Your task to perform on an android device: check android version Image 0: 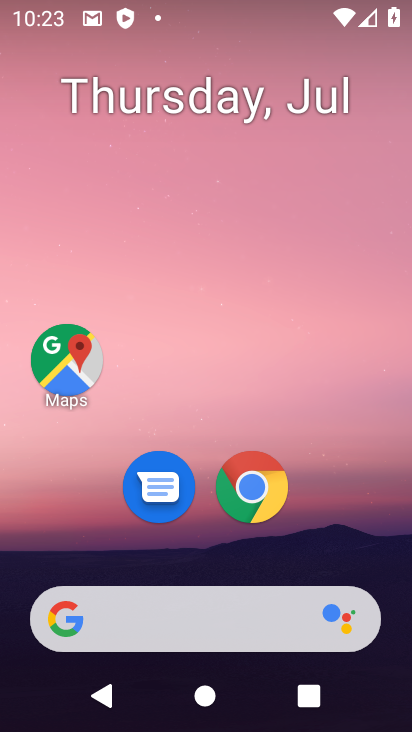
Step 0: drag from (216, 515) to (207, 25)
Your task to perform on an android device: check android version Image 1: 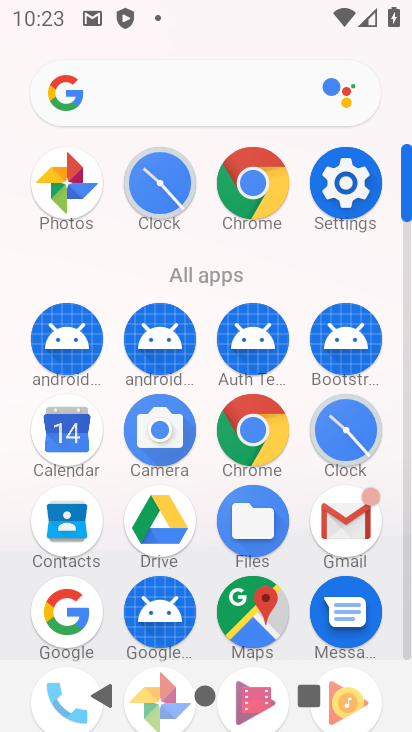
Step 1: click (345, 171)
Your task to perform on an android device: check android version Image 2: 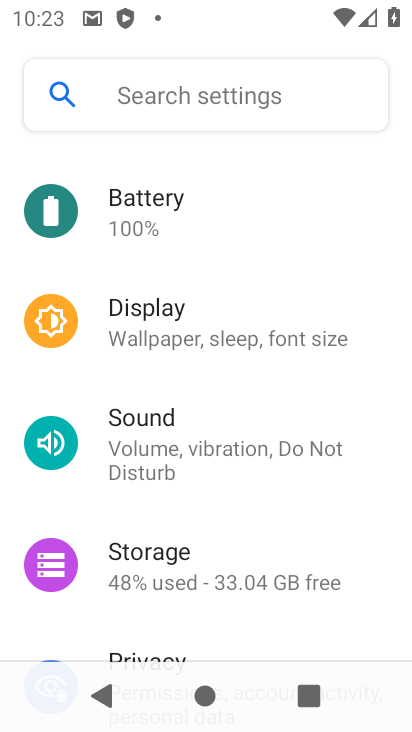
Step 2: drag from (139, 583) to (280, 34)
Your task to perform on an android device: check android version Image 3: 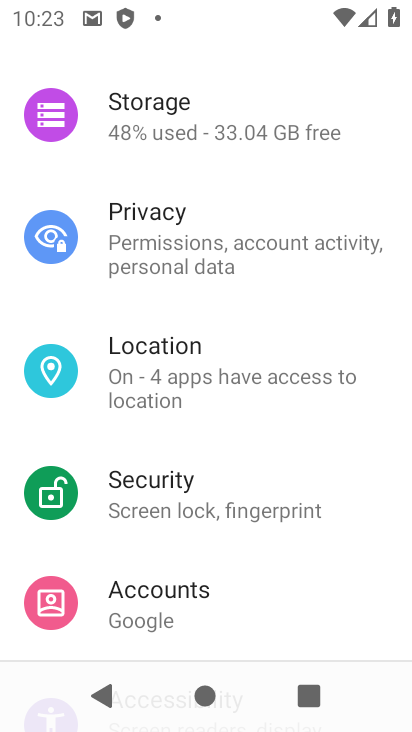
Step 3: drag from (157, 592) to (283, 13)
Your task to perform on an android device: check android version Image 4: 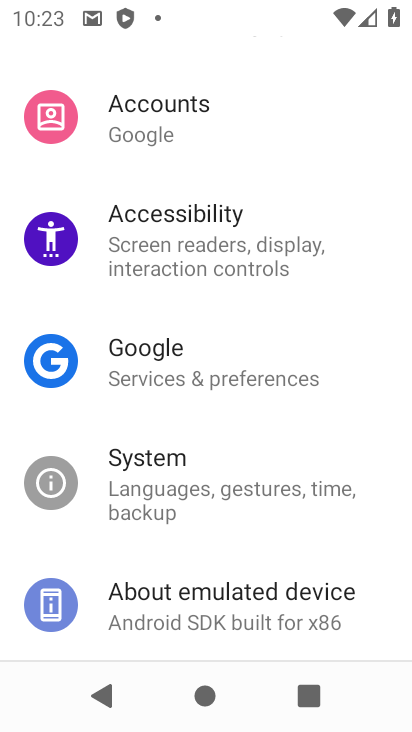
Step 4: click (175, 613)
Your task to perform on an android device: check android version Image 5: 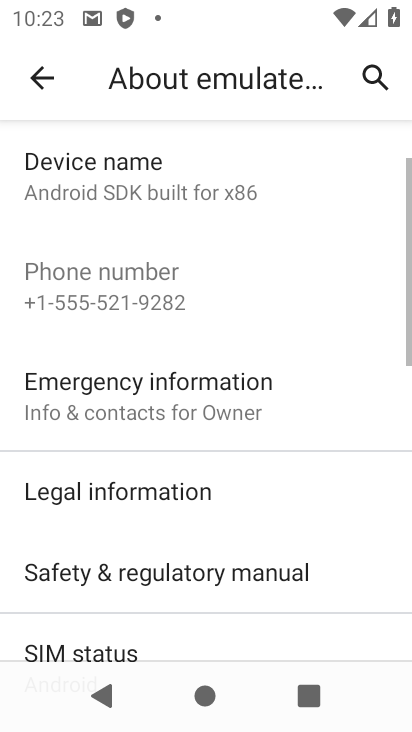
Step 5: drag from (175, 613) to (303, 2)
Your task to perform on an android device: check android version Image 6: 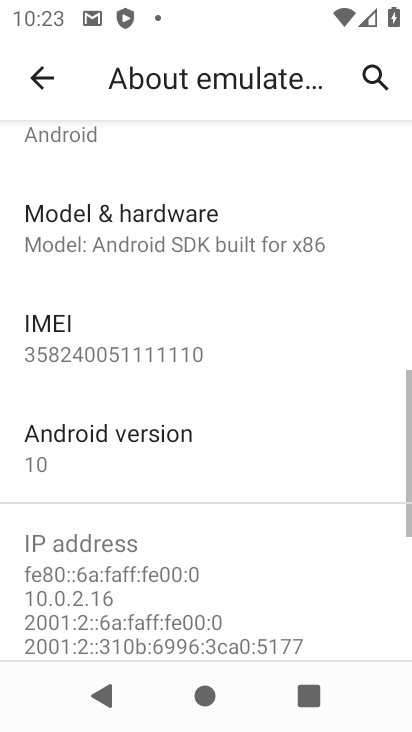
Step 6: click (126, 446)
Your task to perform on an android device: check android version Image 7: 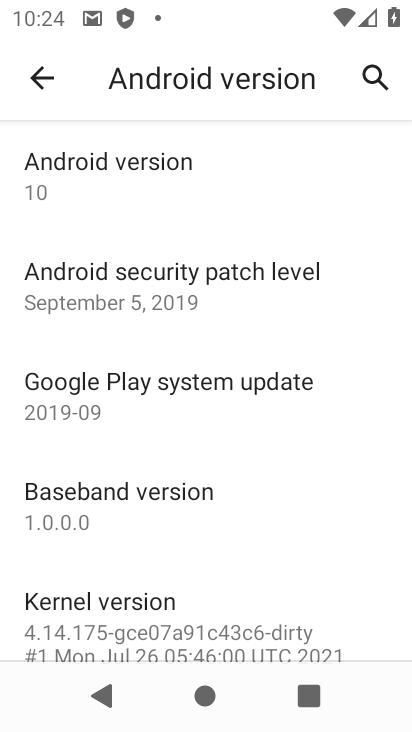
Step 7: click (112, 173)
Your task to perform on an android device: check android version Image 8: 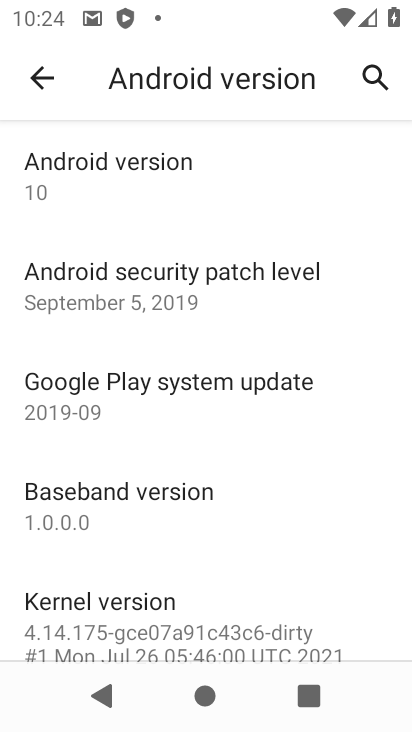
Step 8: task complete